Your task to perform on an android device: turn off javascript in the chrome app Image 0: 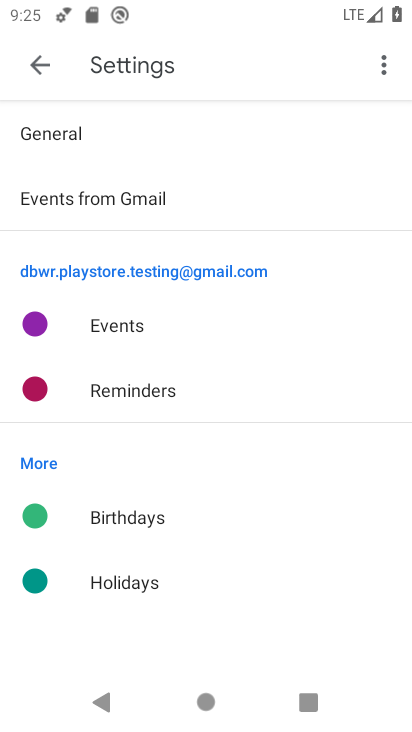
Step 0: press home button
Your task to perform on an android device: turn off javascript in the chrome app Image 1: 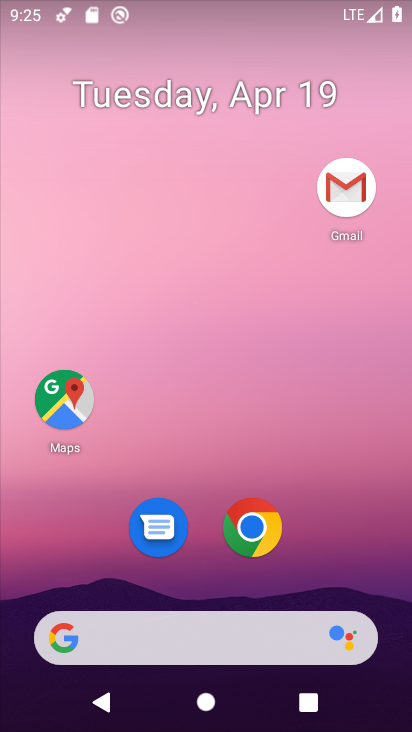
Step 1: click (270, 539)
Your task to perform on an android device: turn off javascript in the chrome app Image 2: 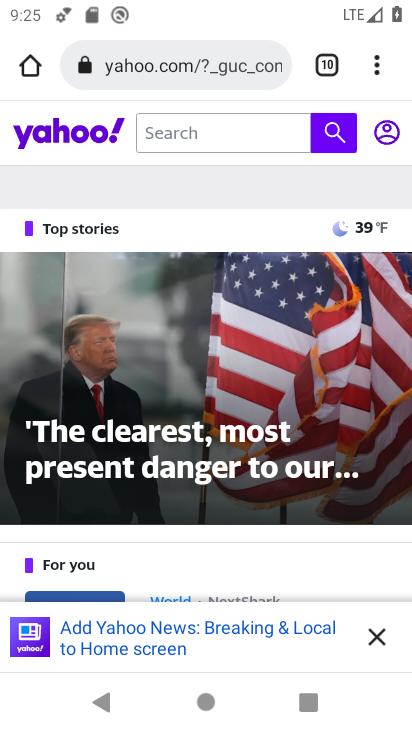
Step 2: click (379, 81)
Your task to perform on an android device: turn off javascript in the chrome app Image 3: 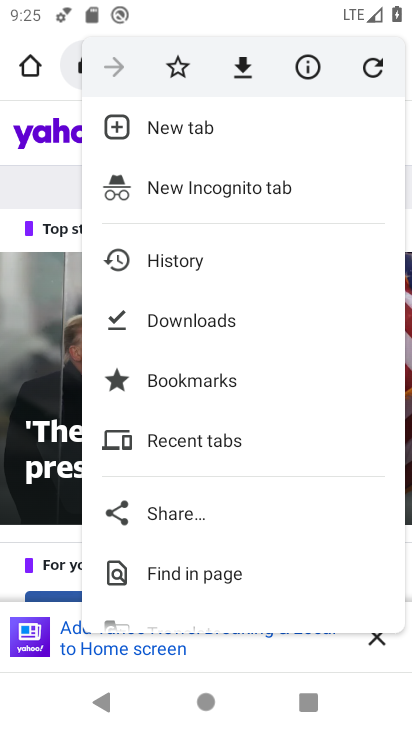
Step 3: drag from (255, 583) to (306, 222)
Your task to perform on an android device: turn off javascript in the chrome app Image 4: 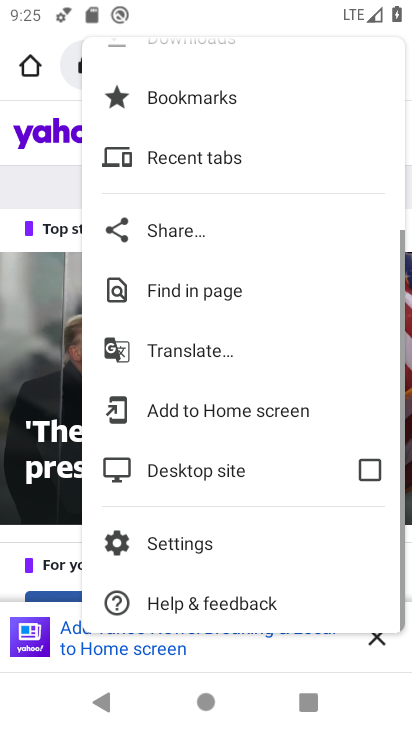
Step 4: click (206, 535)
Your task to perform on an android device: turn off javascript in the chrome app Image 5: 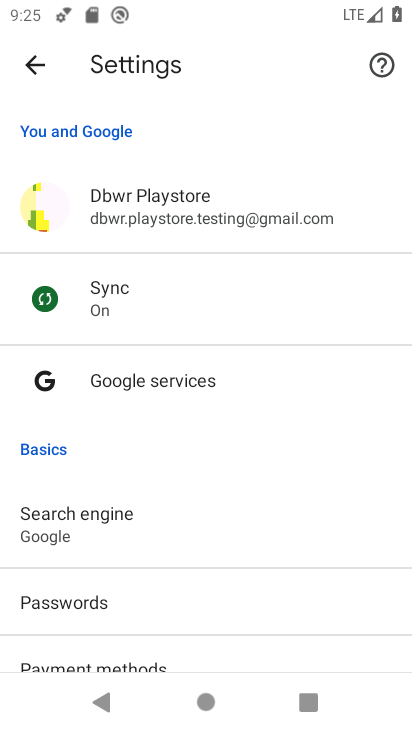
Step 5: drag from (241, 620) to (303, 209)
Your task to perform on an android device: turn off javascript in the chrome app Image 6: 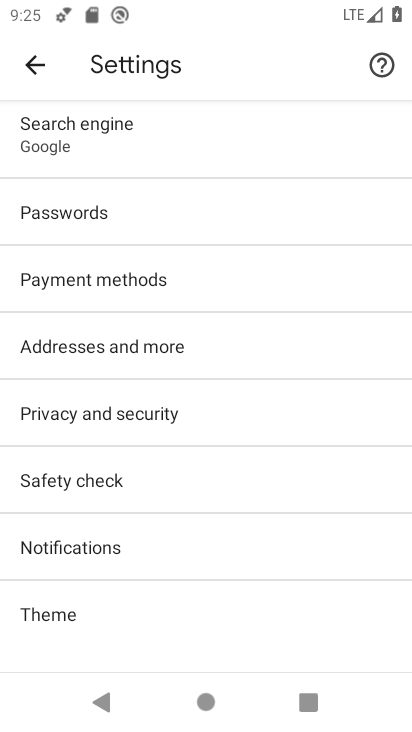
Step 6: drag from (275, 599) to (312, 224)
Your task to perform on an android device: turn off javascript in the chrome app Image 7: 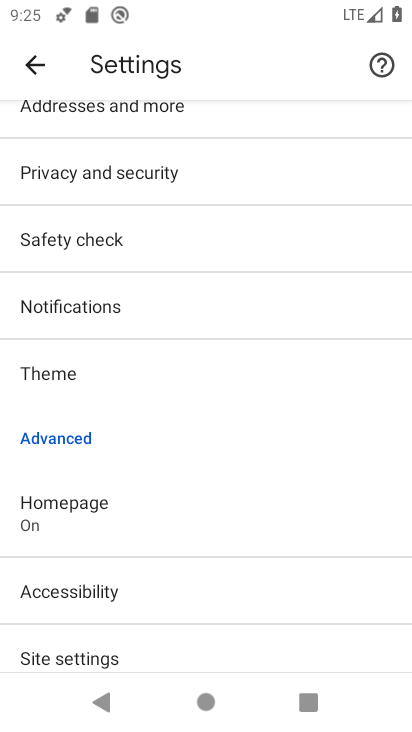
Step 7: drag from (282, 609) to (317, 286)
Your task to perform on an android device: turn off javascript in the chrome app Image 8: 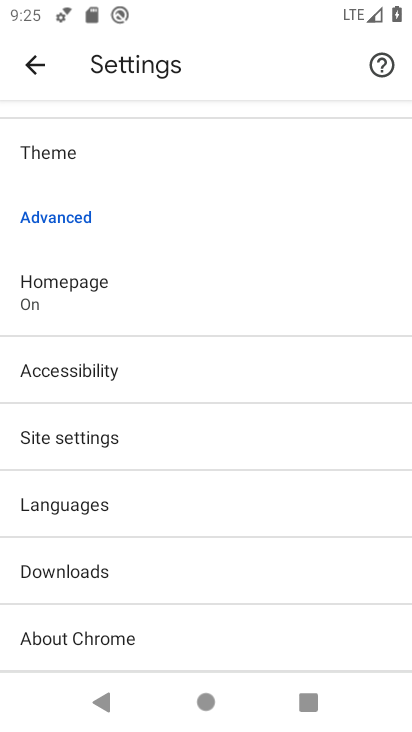
Step 8: click (98, 440)
Your task to perform on an android device: turn off javascript in the chrome app Image 9: 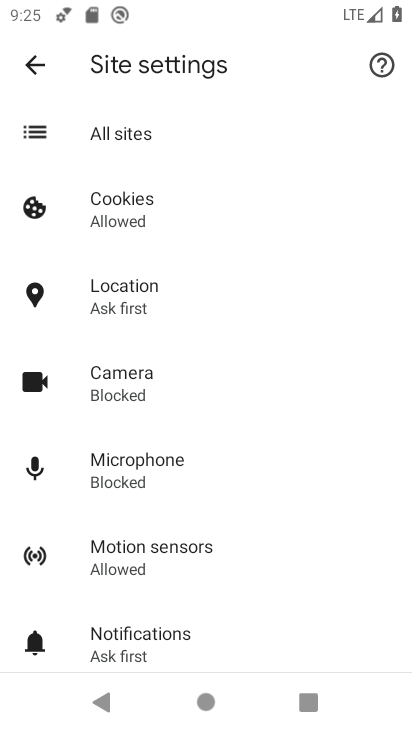
Step 9: drag from (324, 582) to (335, 233)
Your task to perform on an android device: turn off javascript in the chrome app Image 10: 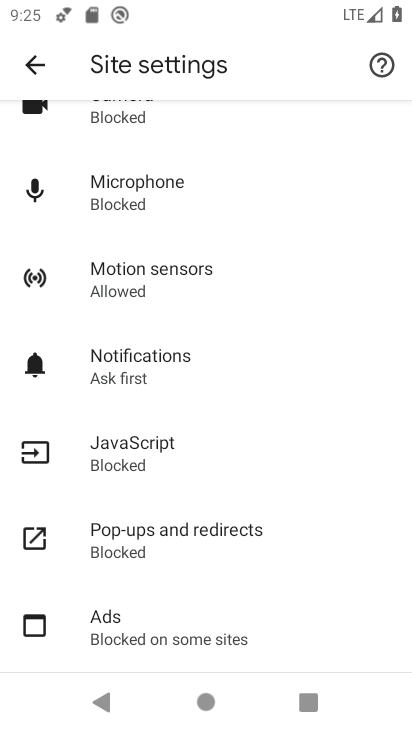
Step 10: click (209, 441)
Your task to perform on an android device: turn off javascript in the chrome app Image 11: 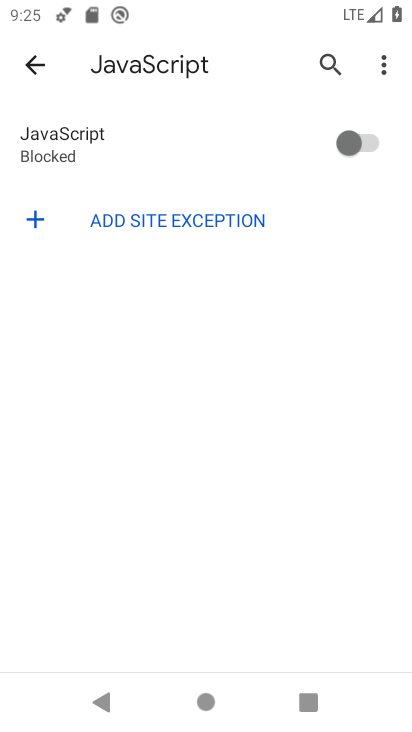
Step 11: task complete